Your task to perform on an android device: Open Google Image 0: 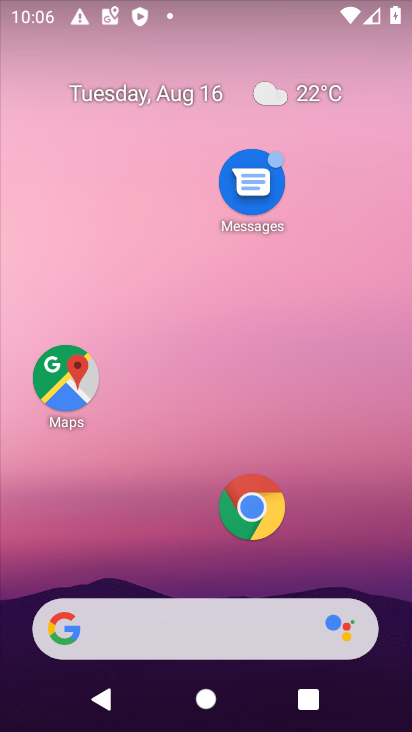
Step 0: drag from (146, 526) to (170, 60)
Your task to perform on an android device: Open Google Image 1: 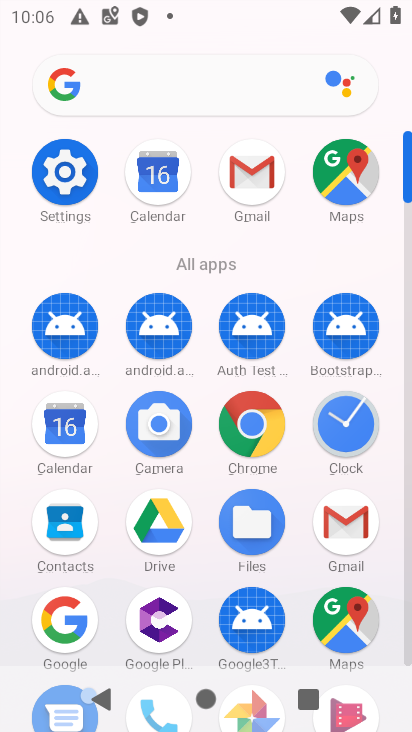
Step 1: click (62, 631)
Your task to perform on an android device: Open Google Image 2: 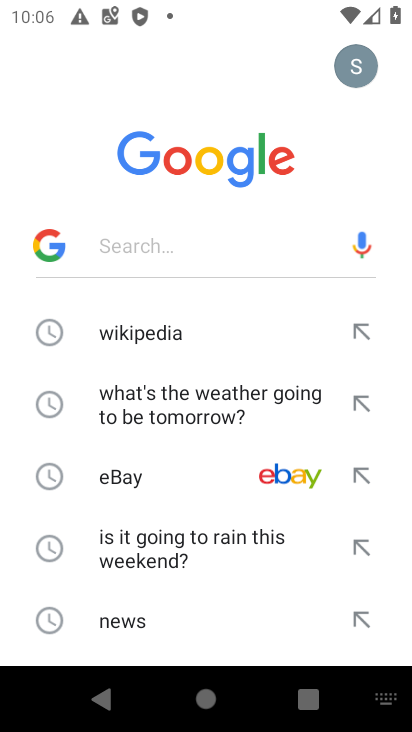
Step 2: task complete